Your task to perform on an android device: Go to Reddit.com Image 0: 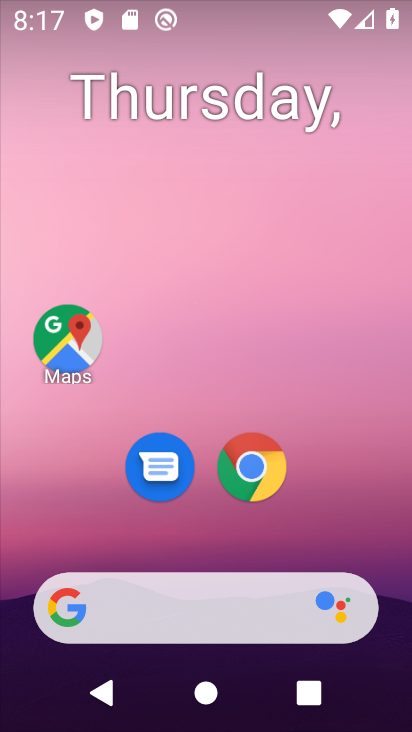
Step 0: click (250, 479)
Your task to perform on an android device: Go to Reddit.com Image 1: 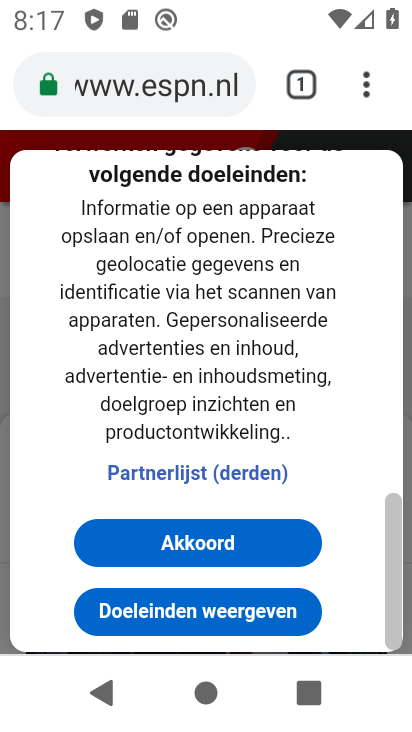
Step 1: click (126, 94)
Your task to perform on an android device: Go to Reddit.com Image 2: 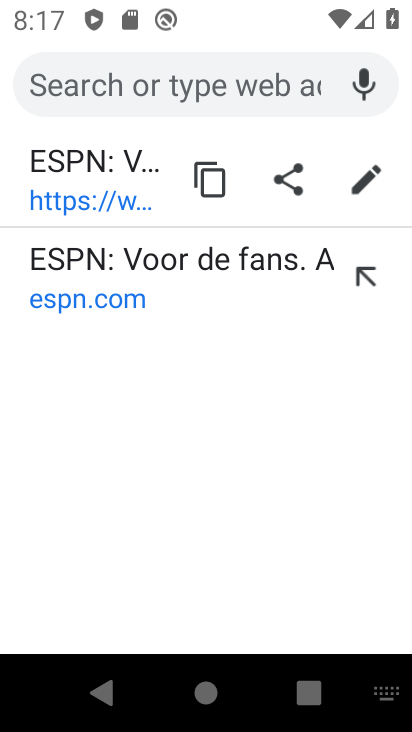
Step 2: type "www.reddit.com"
Your task to perform on an android device: Go to Reddit.com Image 3: 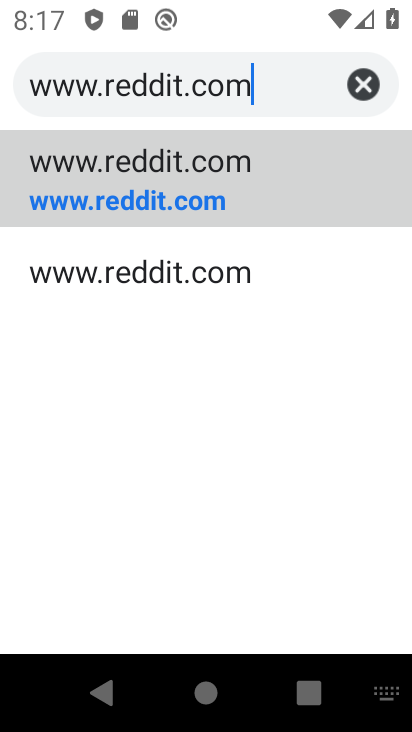
Step 3: click (83, 179)
Your task to perform on an android device: Go to Reddit.com Image 4: 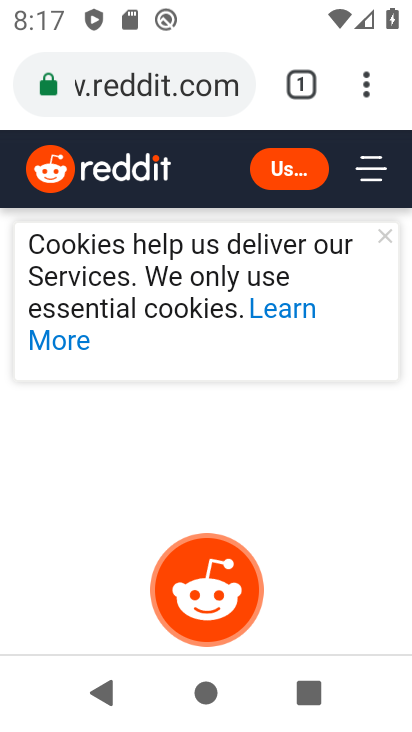
Step 4: task complete